Your task to perform on an android device: Open maps Image 0: 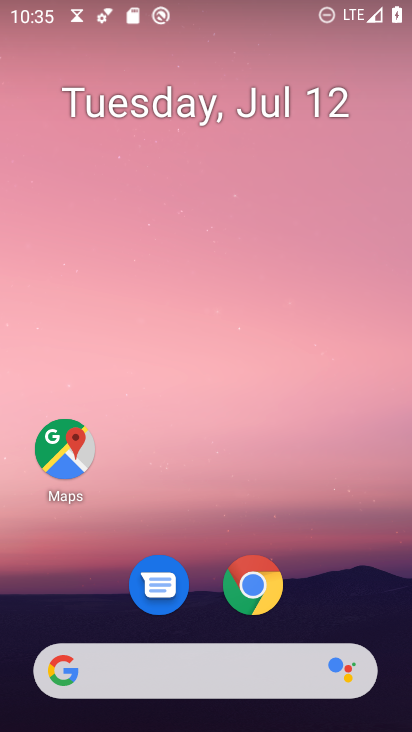
Step 0: click (55, 460)
Your task to perform on an android device: Open maps Image 1: 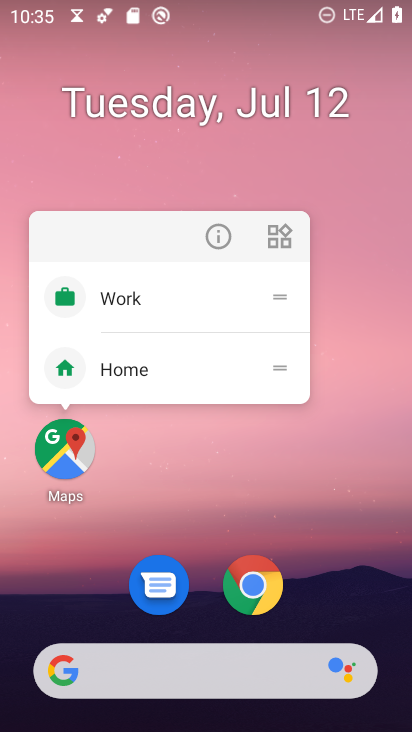
Step 1: click (64, 446)
Your task to perform on an android device: Open maps Image 2: 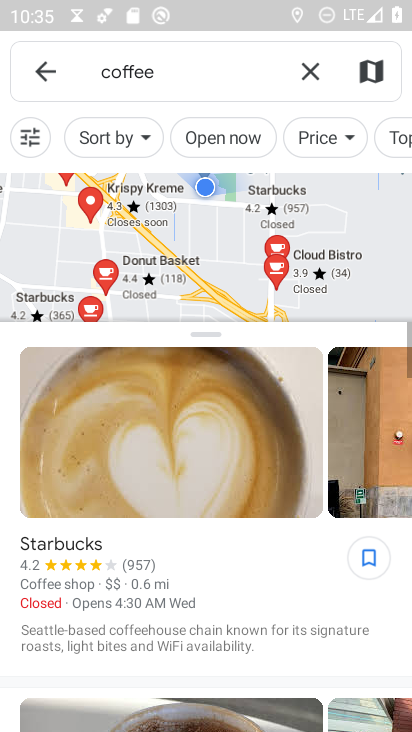
Step 2: click (44, 77)
Your task to perform on an android device: Open maps Image 3: 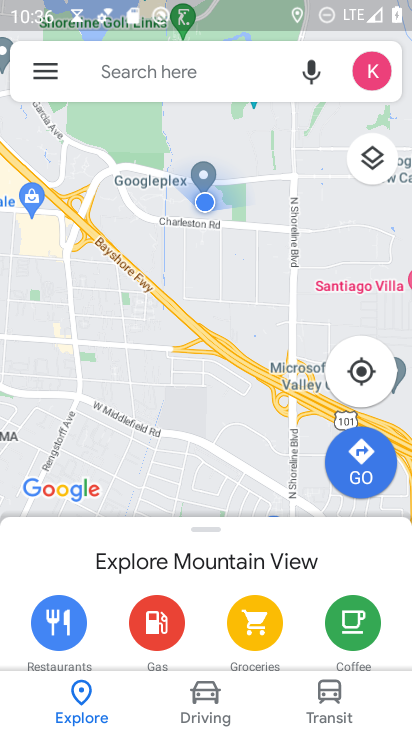
Step 3: task complete